Your task to perform on an android device: turn smart compose on in the gmail app Image 0: 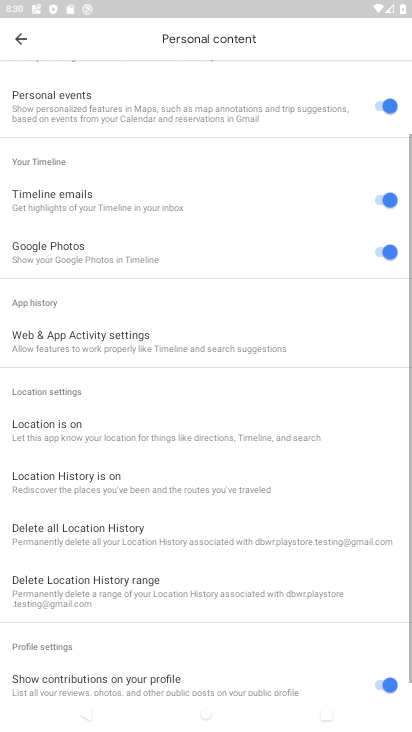
Step 0: press home button
Your task to perform on an android device: turn smart compose on in the gmail app Image 1: 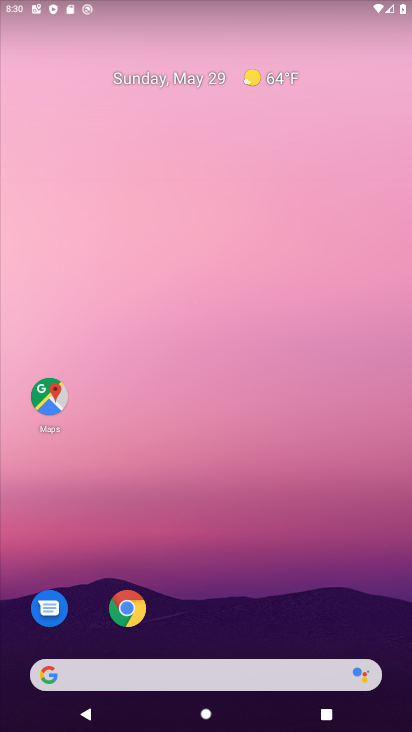
Step 1: drag from (239, 580) to (152, 194)
Your task to perform on an android device: turn smart compose on in the gmail app Image 2: 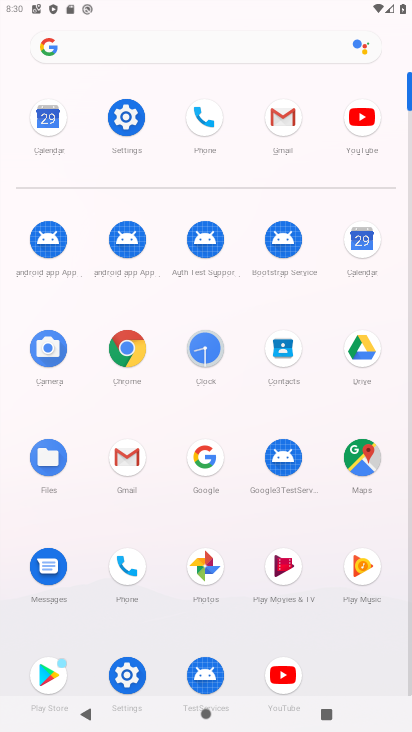
Step 2: click (279, 119)
Your task to perform on an android device: turn smart compose on in the gmail app Image 3: 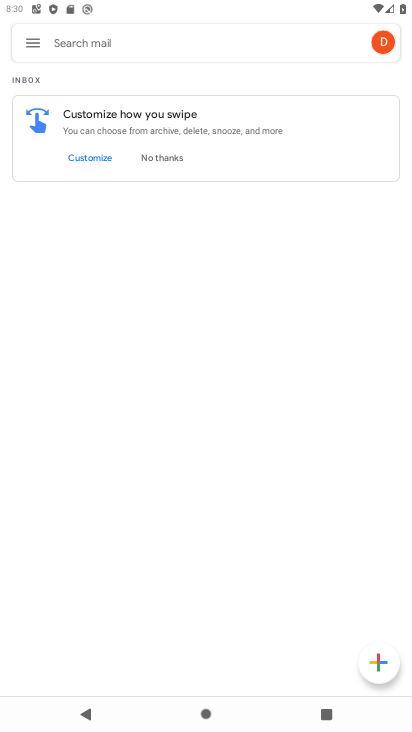
Step 3: click (28, 37)
Your task to perform on an android device: turn smart compose on in the gmail app Image 4: 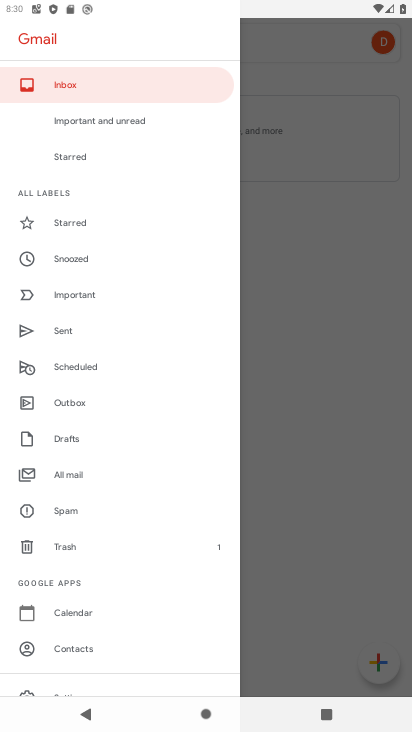
Step 4: click (83, 209)
Your task to perform on an android device: turn smart compose on in the gmail app Image 5: 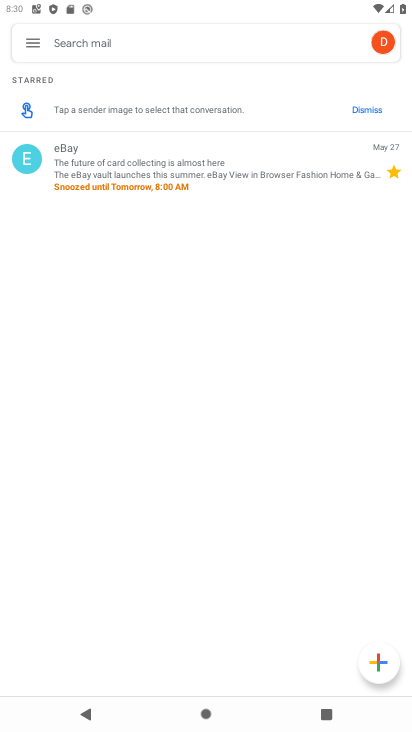
Step 5: click (33, 30)
Your task to perform on an android device: turn smart compose on in the gmail app Image 6: 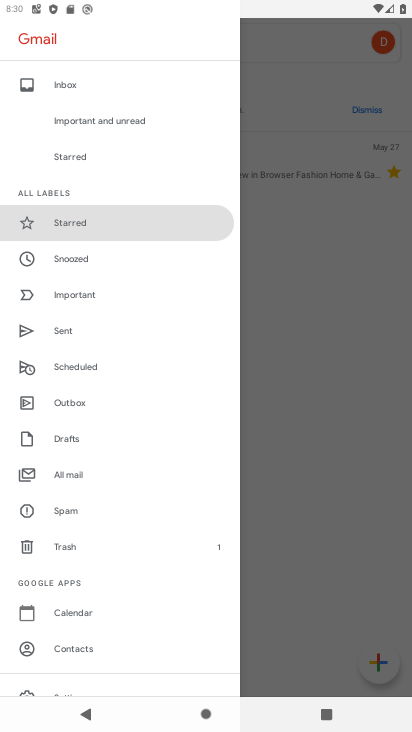
Step 6: drag from (114, 608) to (78, 264)
Your task to perform on an android device: turn smart compose on in the gmail app Image 7: 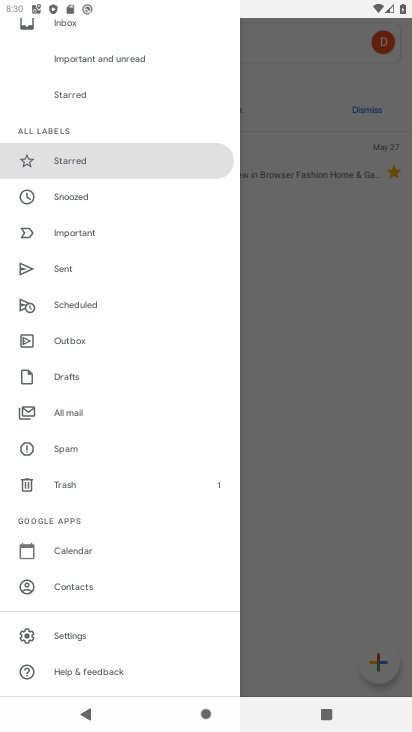
Step 7: click (56, 627)
Your task to perform on an android device: turn smart compose on in the gmail app Image 8: 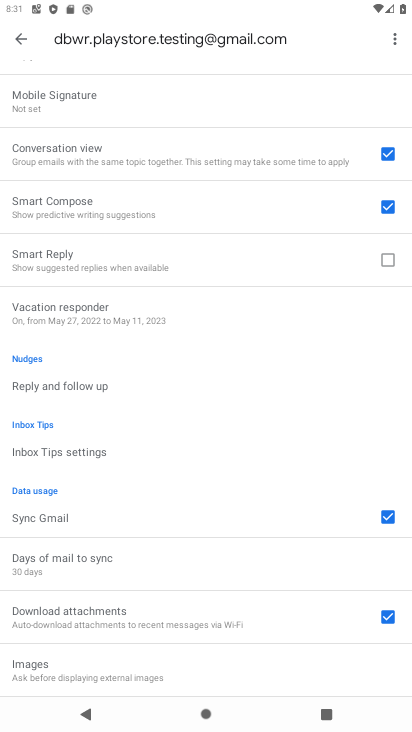
Step 8: task complete